Your task to perform on an android device: Open Android settings Image 0: 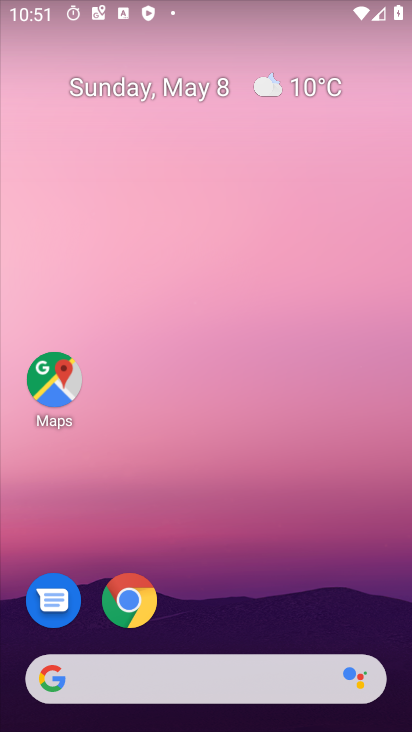
Step 0: drag from (222, 595) to (159, 24)
Your task to perform on an android device: Open Android settings Image 1: 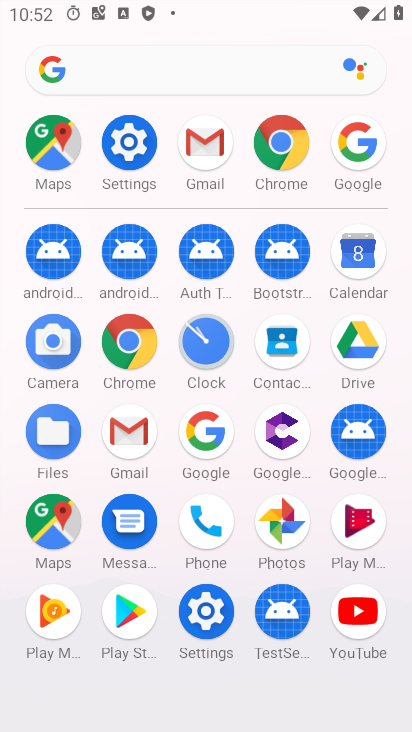
Step 1: click (136, 147)
Your task to perform on an android device: Open Android settings Image 2: 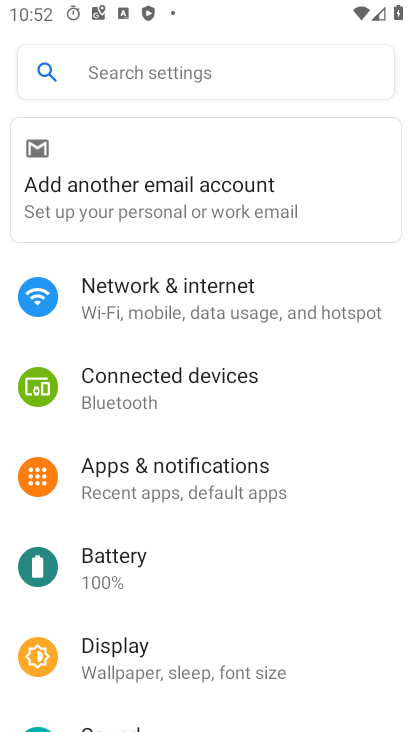
Step 2: drag from (248, 567) to (237, 13)
Your task to perform on an android device: Open Android settings Image 3: 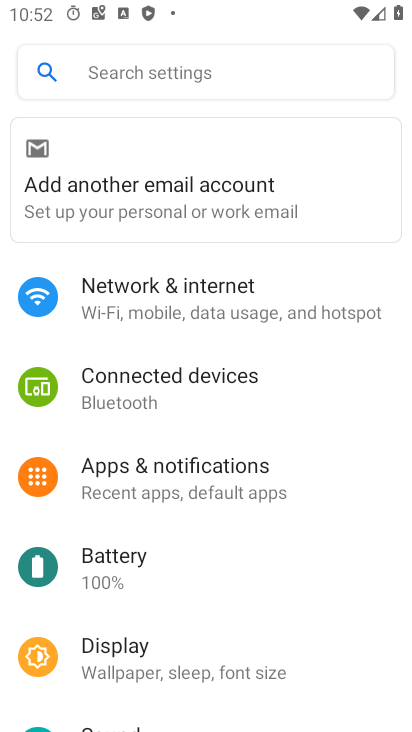
Step 3: drag from (224, 592) to (221, 135)
Your task to perform on an android device: Open Android settings Image 4: 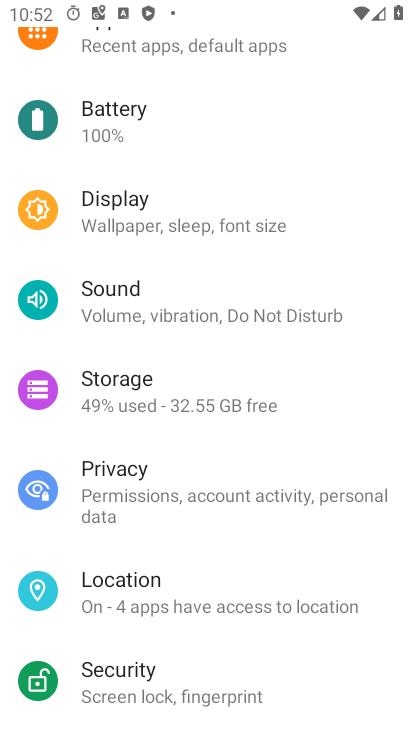
Step 4: drag from (196, 568) to (199, 186)
Your task to perform on an android device: Open Android settings Image 5: 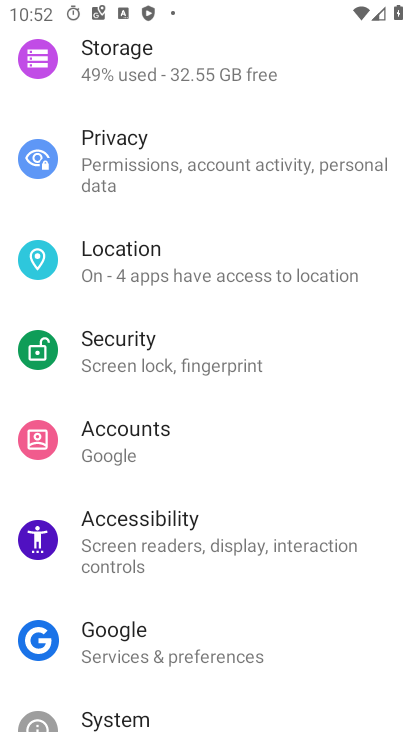
Step 5: drag from (193, 643) to (180, 163)
Your task to perform on an android device: Open Android settings Image 6: 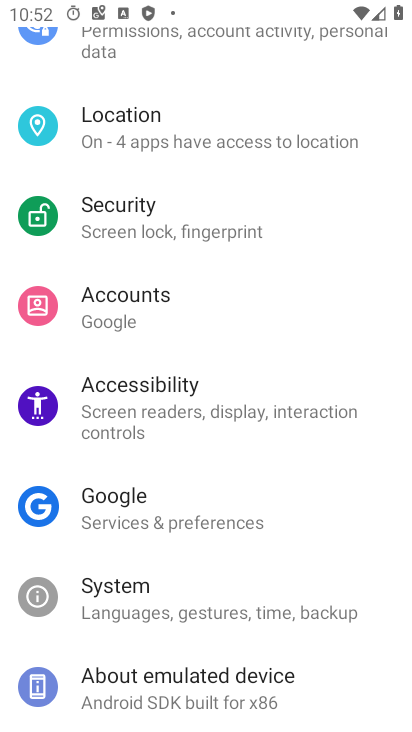
Step 6: click (201, 690)
Your task to perform on an android device: Open Android settings Image 7: 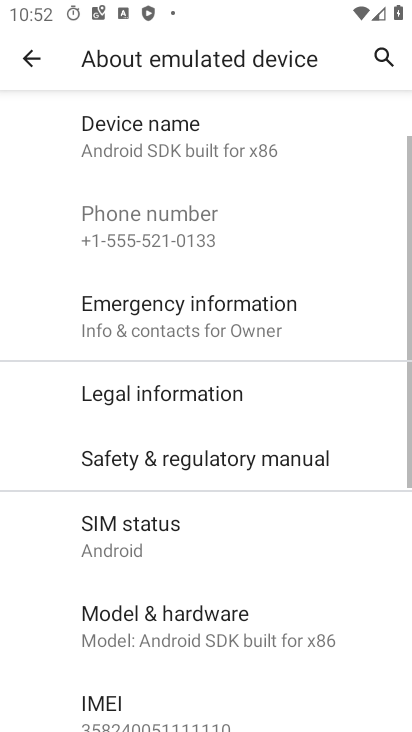
Step 7: drag from (203, 689) to (232, 370)
Your task to perform on an android device: Open Android settings Image 8: 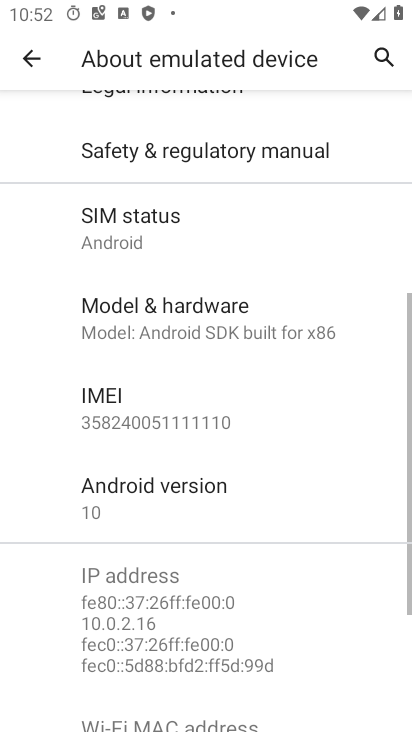
Step 8: drag from (234, 287) to (238, 354)
Your task to perform on an android device: Open Android settings Image 9: 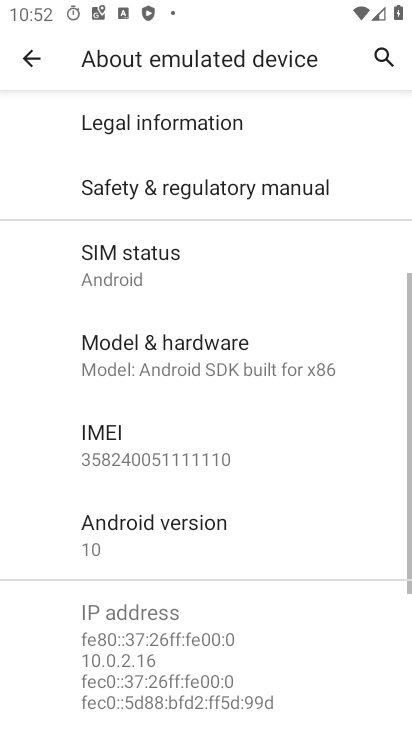
Step 9: click (126, 554)
Your task to perform on an android device: Open Android settings Image 10: 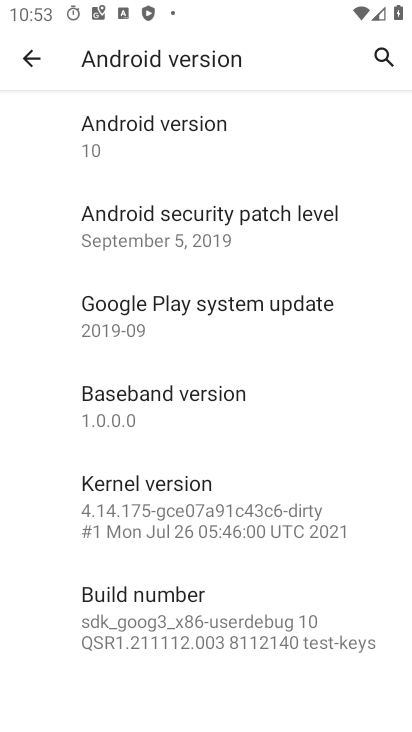
Step 10: task complete